Your task to perform on an android device: Search for pizza restaurants on Maps Image 0: 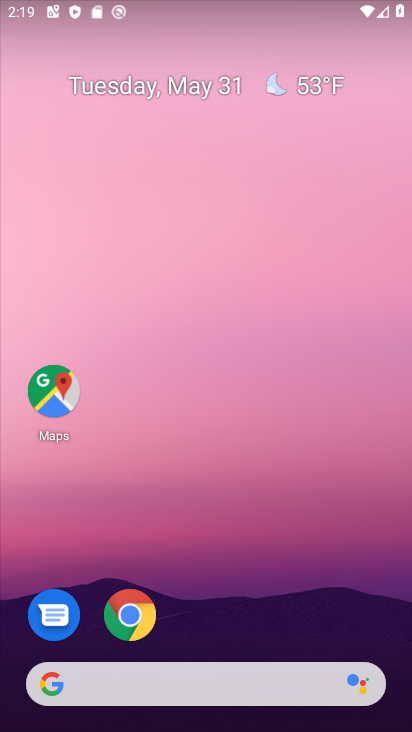
Step 0: click (53, 389)
Your task to perform on an android device: Search for pizza restaurants on Maps Image 1: 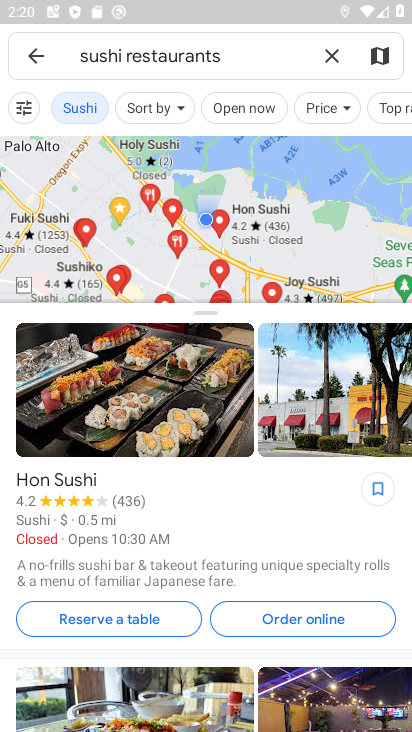
Step 1: click (327, 62)
Your task to perform on an android device: Search for pizza restaurants on Maps Image 2: 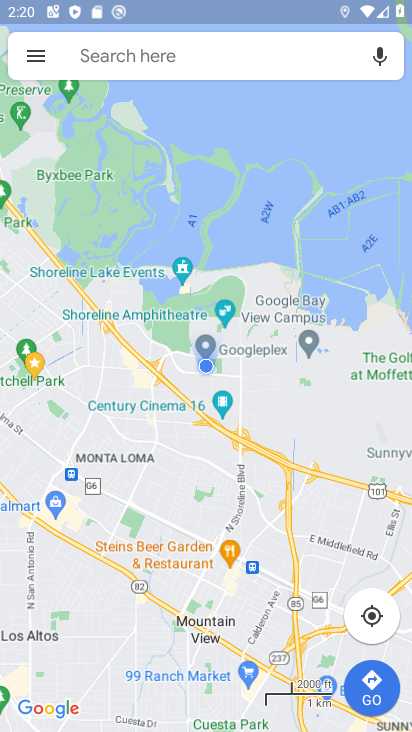
Step 2: click (118, 65)
Your task to perform on an android device: Search for pizza restaurants on Maps Image 3: 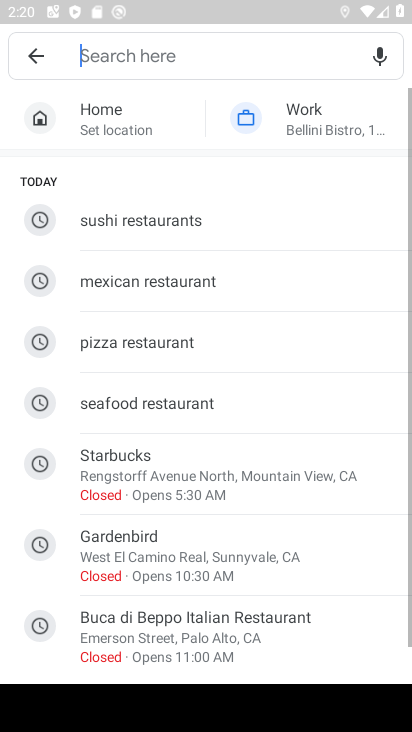
Step 3: click (130, 343)
Your task to perform on an android device: Search for pizza restaurants on Maps Image 4: 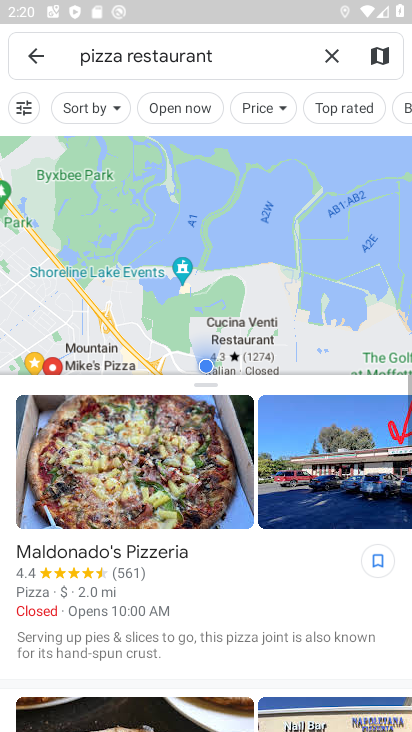
Step 4: task complete